Your task to perform on an android device: Open Google Chrome Image 0: 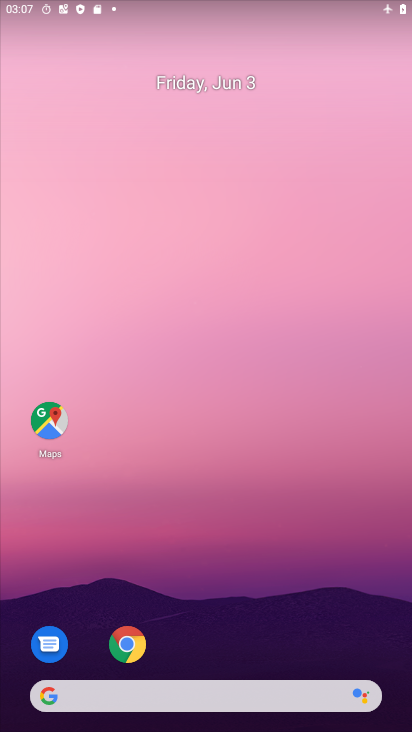
Step 0: click (133, 649)
Your task to perform on an android device: Open Google Chrome Image 1: 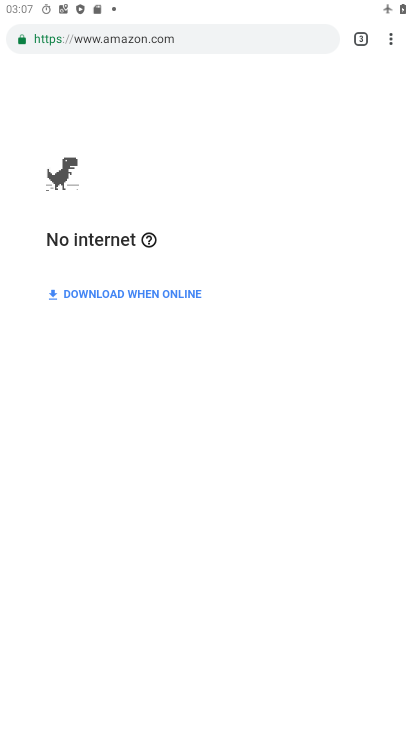
Step 1: task complete